Your task to perform on an android device: add a contact Image 0: 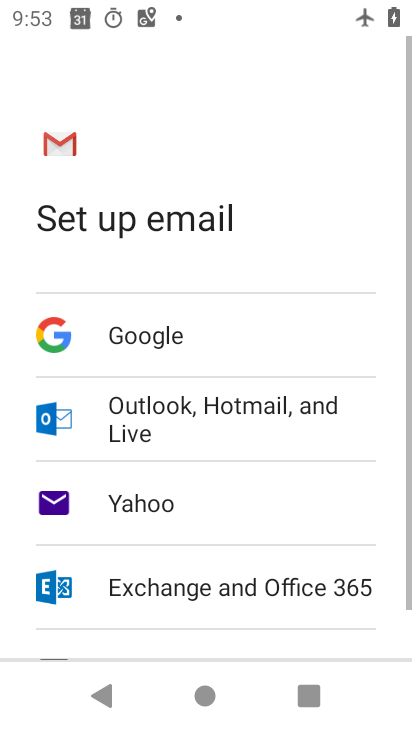
Step 0: press home button
Your task to perform on an android device: add a contact Image 1: 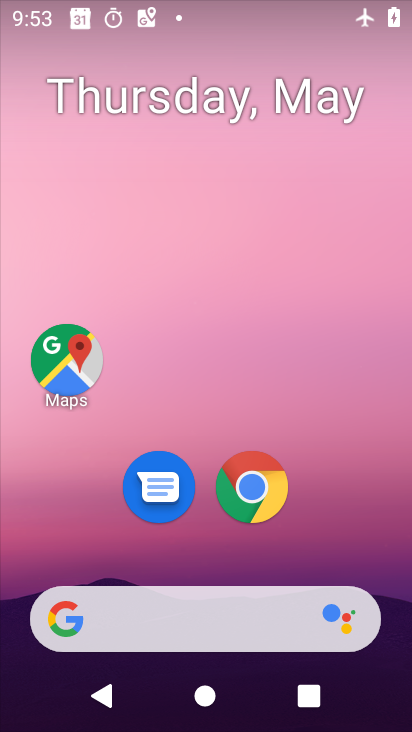
Step 1: drag from (252, 563) to (245, 88)
Your task to perform on an android device: add a contact Image 2: 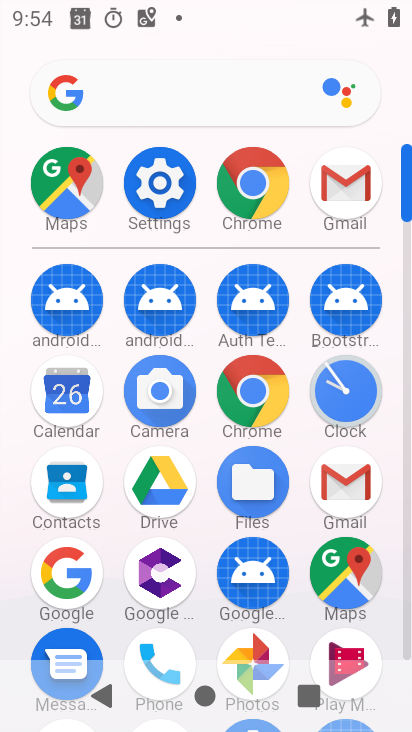
Step 2: click (74, 486)
Your task to perform on an android device: add a contact Image 3: 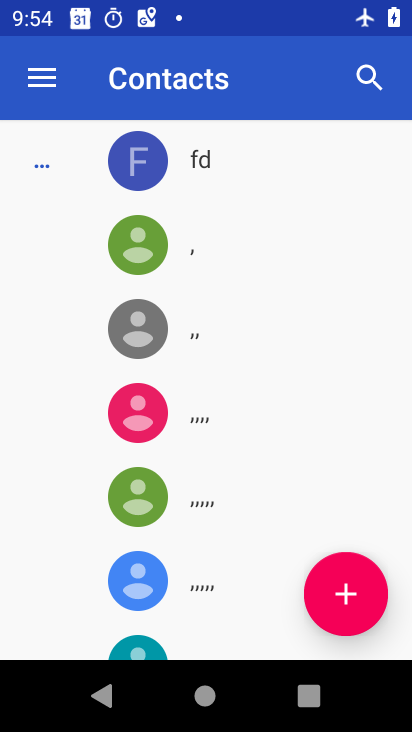
Step 3: click (352, 590)
Your task to perform on an android device: add a contact Image 4: 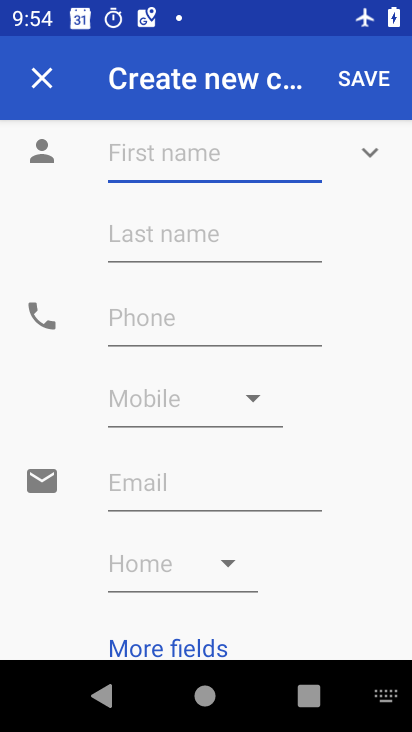
Step 4: type "ncducidsmc"
Your task to perform on an android device: add a contact Image 5: 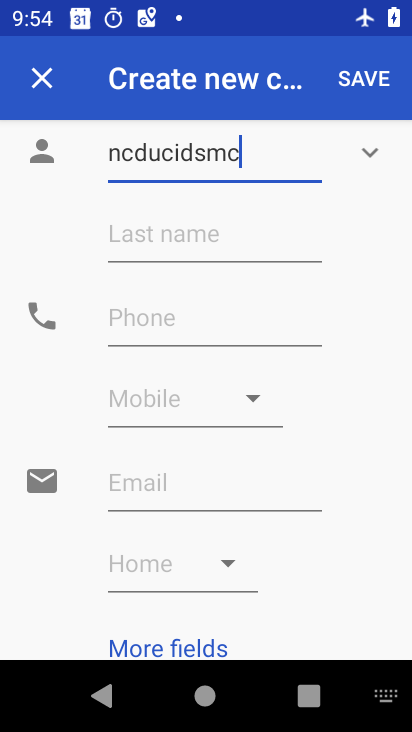
Step 5: click (203, 323)
Your task to perform on an android device: add a contact Image 6: 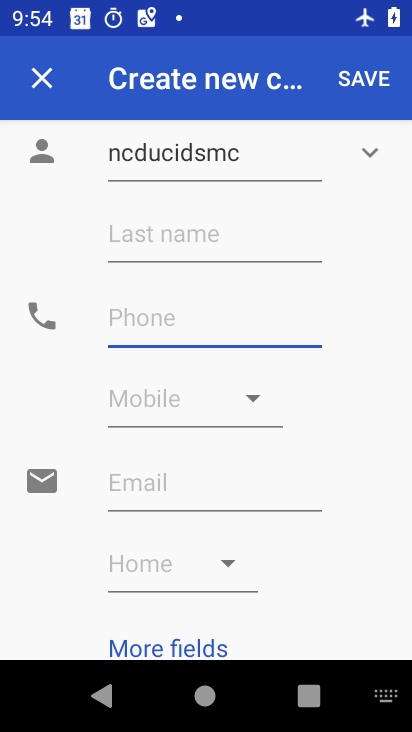
Step 6: type "9587597497775"
Your task to perform on an android device: add a contact Image 7: 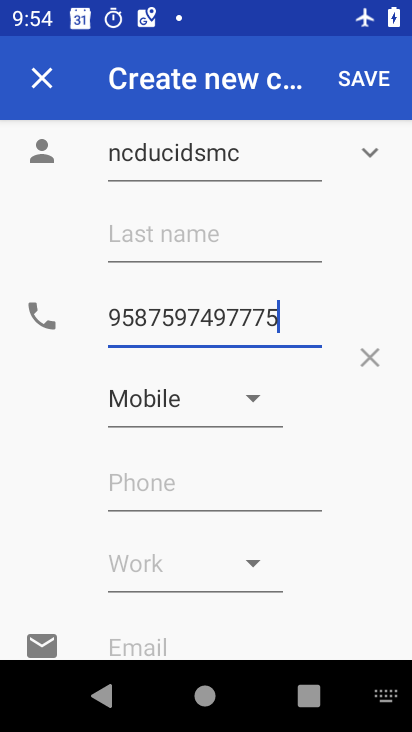
Step 7: click (358, 86)
Your task to perform on an android device: add a contact Image 8: 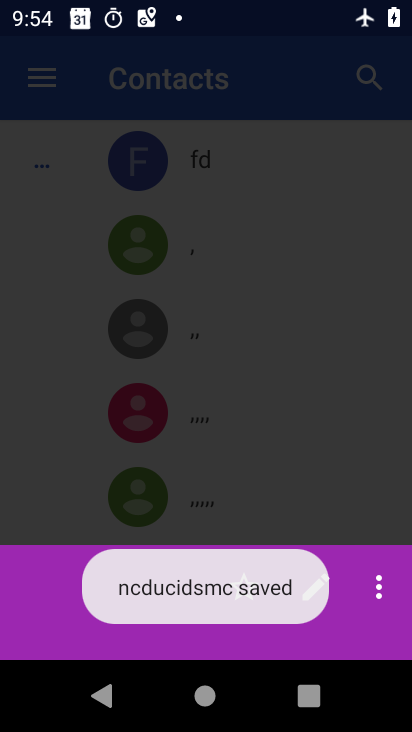
Step 8: click (358, 86)
Your task to perform on an android device: add a contact Image 9: 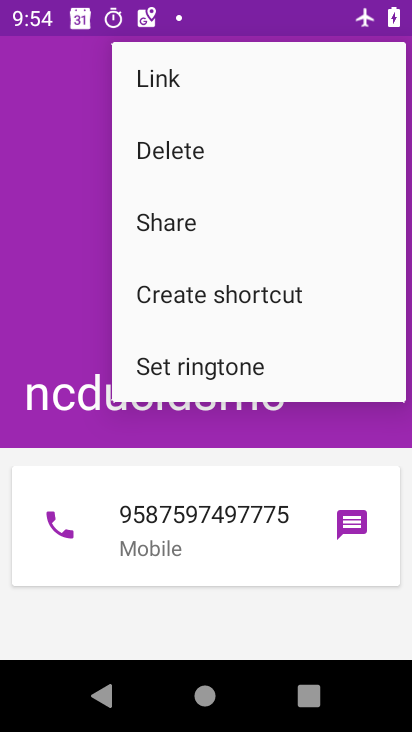
Step 9: click (67, 279)
Your task to perform on an android device: add a contact Image 10: 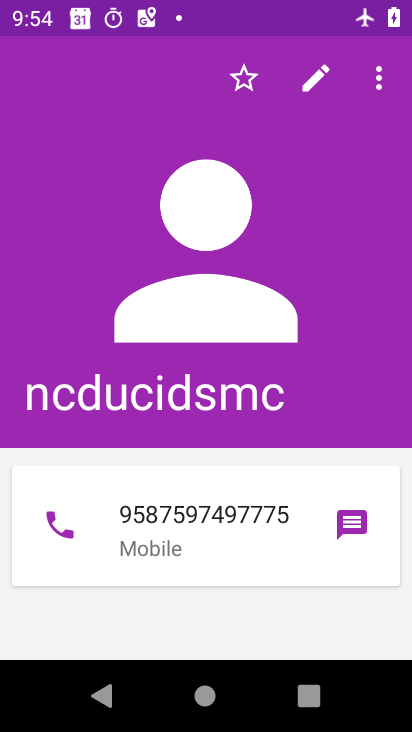
Step 10: task complete